Your task to perform on an android device: Go to Maps Image 0: 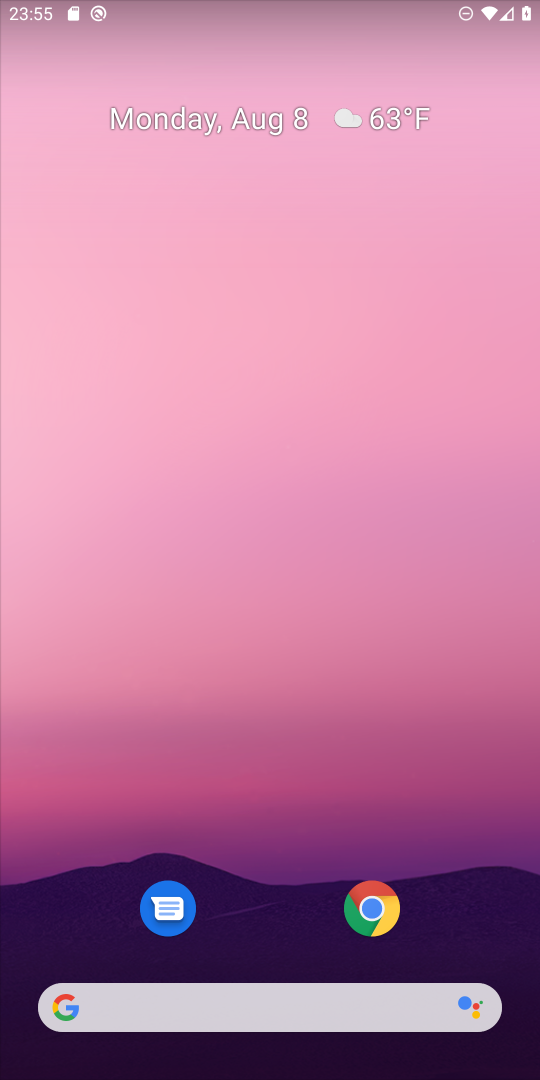
Step 0: drag from (281, 931) to (317, 162)
Your task to perform on an android device: Go to Maps Image 1: 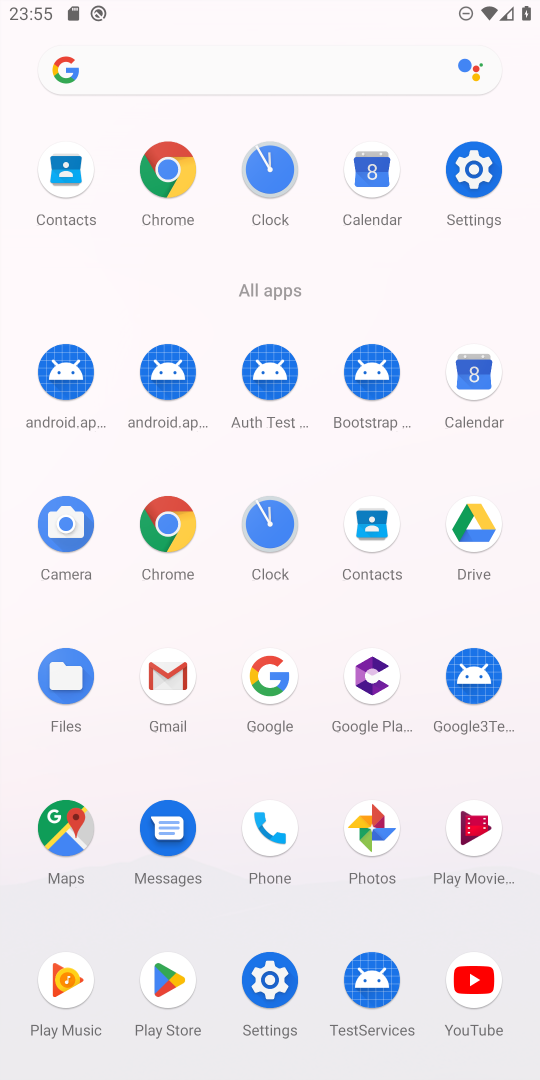
Step 1: click (70, 820)
Your task to perform on an android device: Go to Maps Image 2: 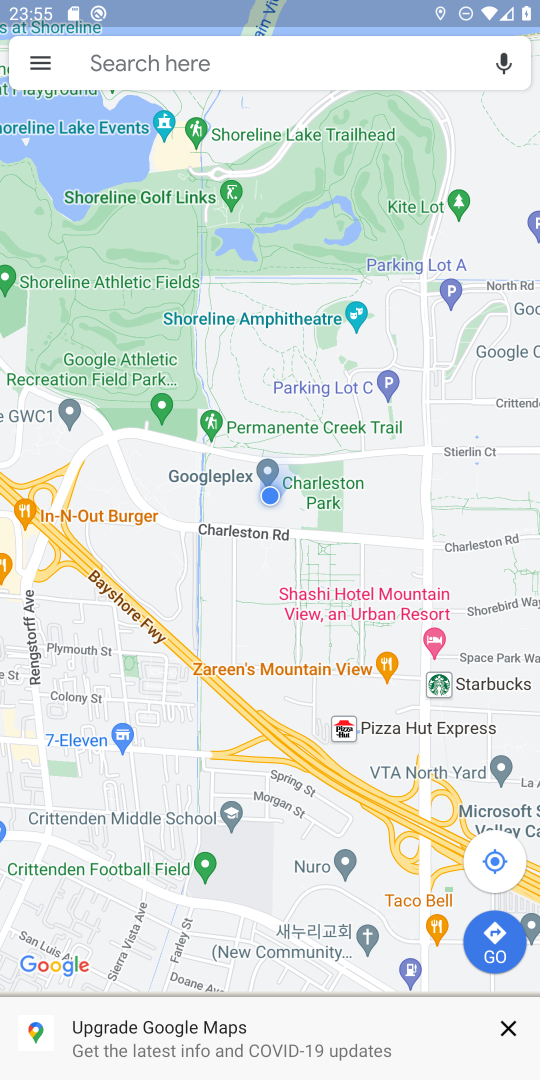
Step 2: task complete